Your task to perform on an android device: turn off data saver in the chrome app Image 0: 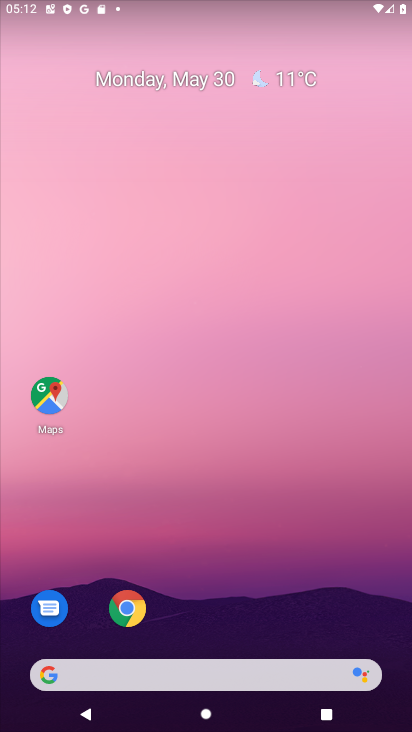
Step 0: click (126, 613)
Your task to perform on an android device: turn off data saver in the chrome app Image 1: 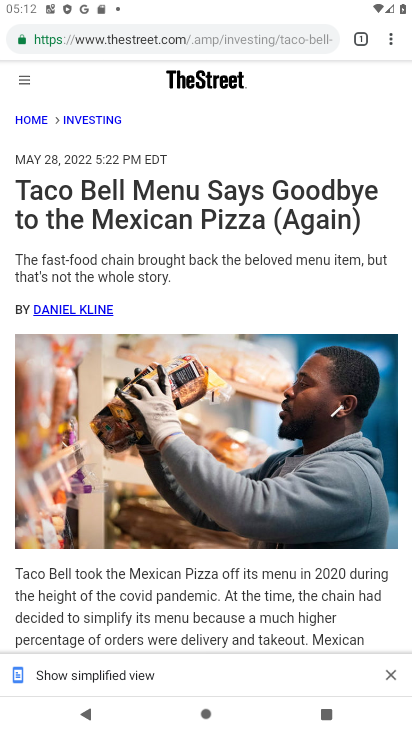
Step 1: click (396, 41)
Your task to perform on an android device: turn off data saver in the chrome app Image 2: 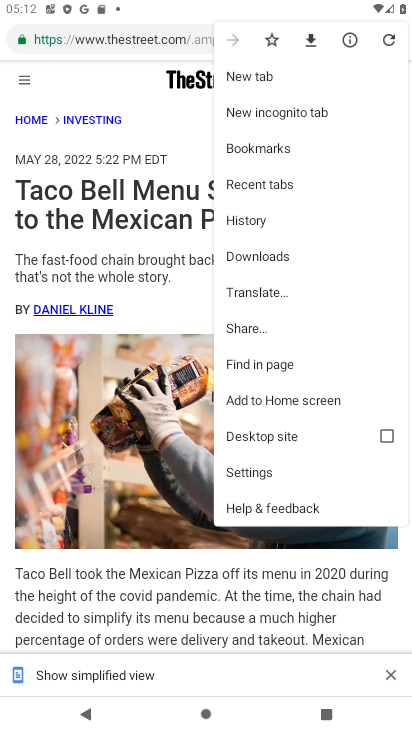
Step 2: click (244, 479)
Your task to perform on an android device: turn off data saver in the chrome app Image 3: 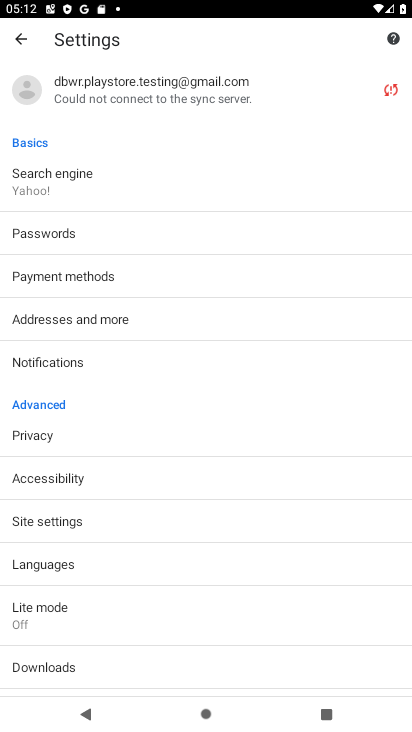
Step 3: click (43, 618)
Your task to perform on an android device: turn off data saver in the chrome app Image 4: 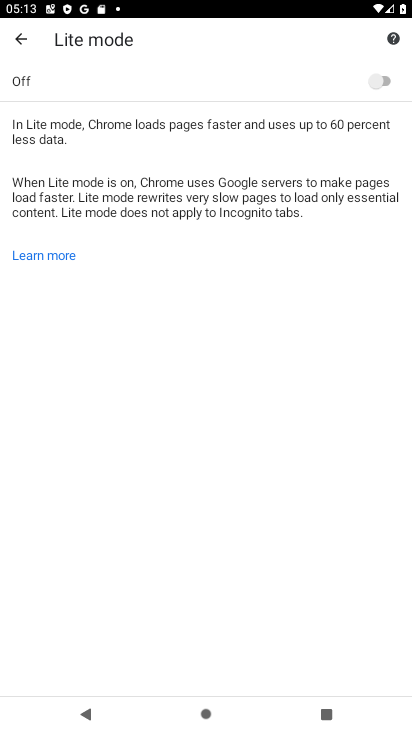
Step 4: task complete